Your task to perform on an android device: Turn off the flashlight Image 0: 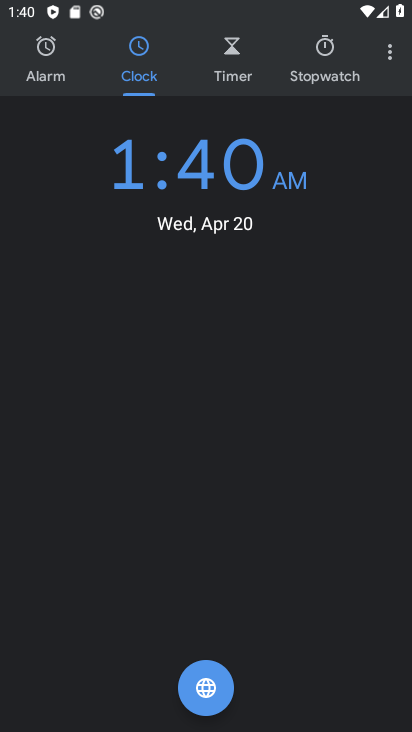
Step 0: press home button
Your task to perform on an android device: Turn off the flashlight Image 1: 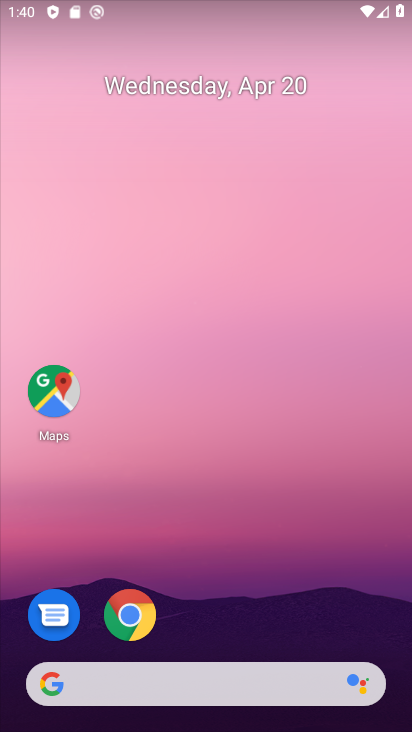
Step 1: drag from (256, 612) to (285, 57)
Your task to perform on an android device: Turn off the flashlight Image 2: 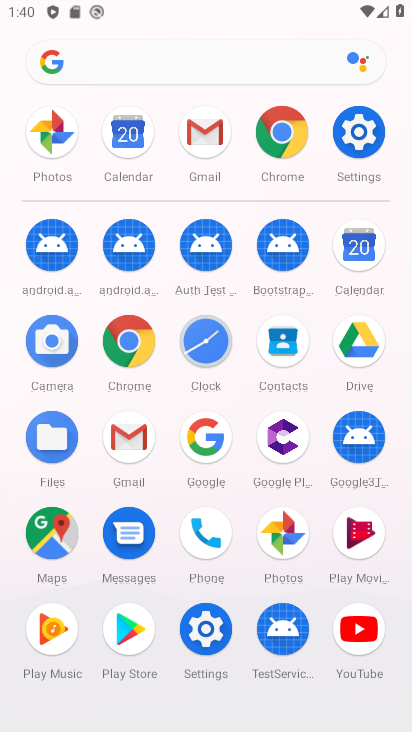
Step 2: click (215, 629)
Your task to perform on an android device: Turn off the flashlight Image 3: 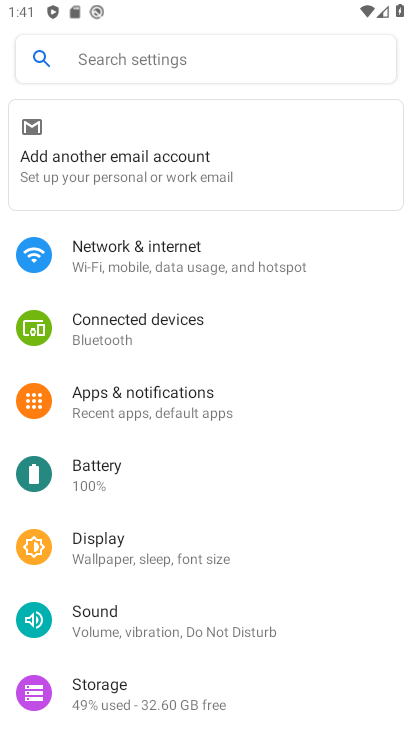
Step 3: task complete